Your task to perform on an android device: Open the phone app and click the voicemail tab. Image 0: 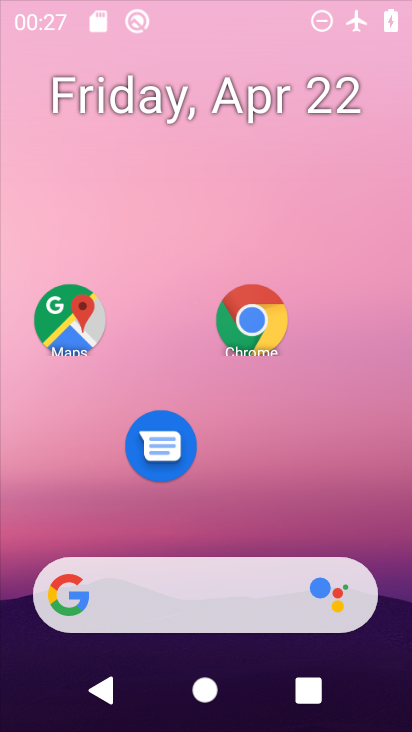
Step 0: click (197, 190)
Your task to perform on an android device: Open the phone app and click the voicemail tab. Image 1: 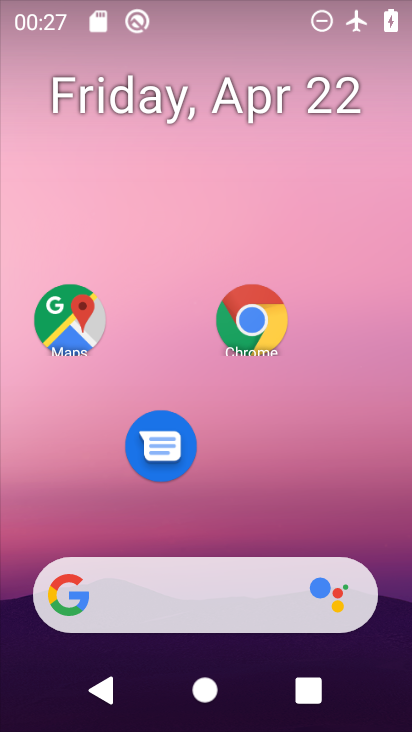
Step 1: drag from (241, 496) to (214, 138)
Your task to perform on an android device: Open the phone app and click the voicemail tab. Image 2: 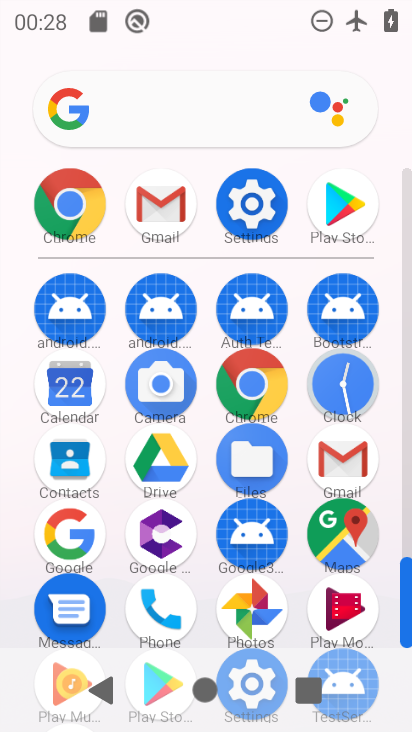
Step 2: drag from (197, 607) to (207, 292)
Your task to perform on an android device: Open the phone app and click the voicemail tab. Image 3: 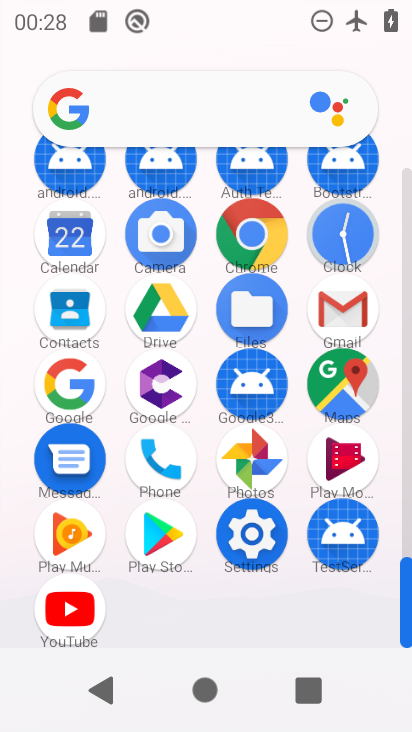
Step 3: click (152, 436)
Your task to perform on an android device: Open the phone app and click the voicemail tab. Image 4: 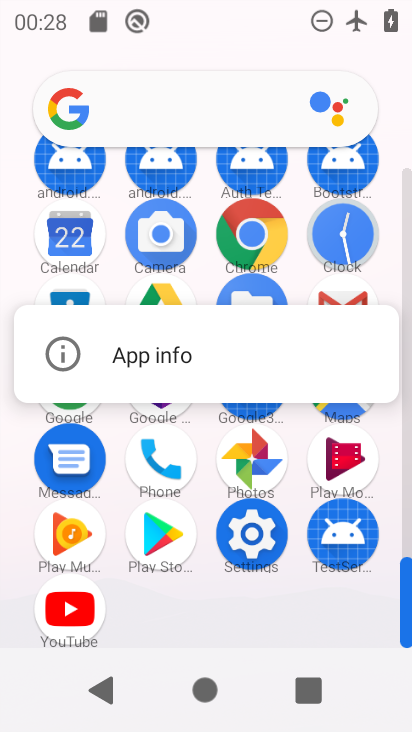
Step 4: click (132, 347)
Your task to perform on an android device: Open the phone app and click the voicemail tab. Image 5: 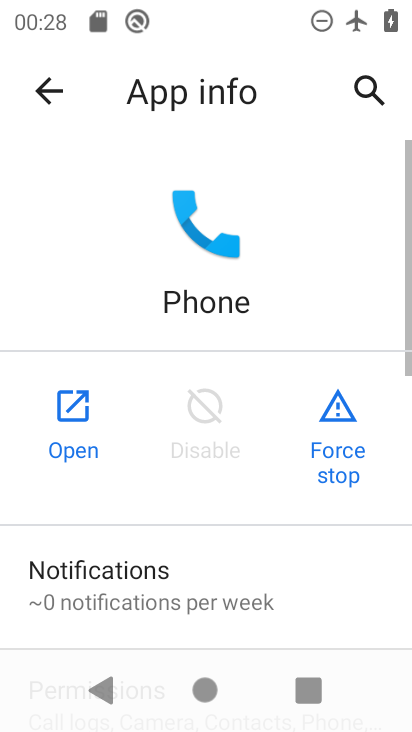
Step 5: click (76, 418)
Your task to perform on an android device: Open the phone app and click the voicemail tab. Image 6: 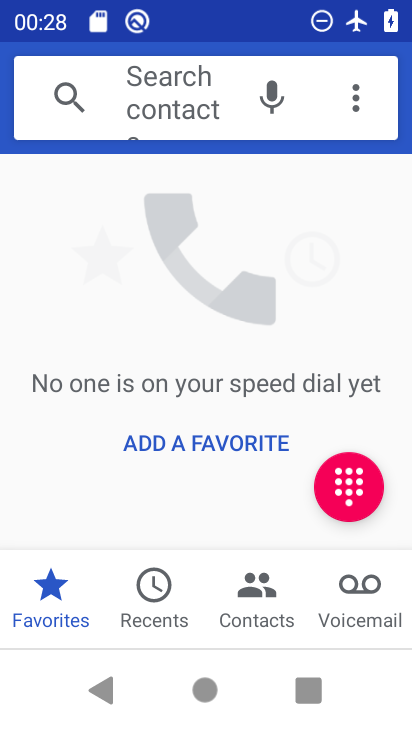
Step 6: click (358, 568)
Your task to perform on an android device: Open the phone app and click the voicemail tab. Image 7: 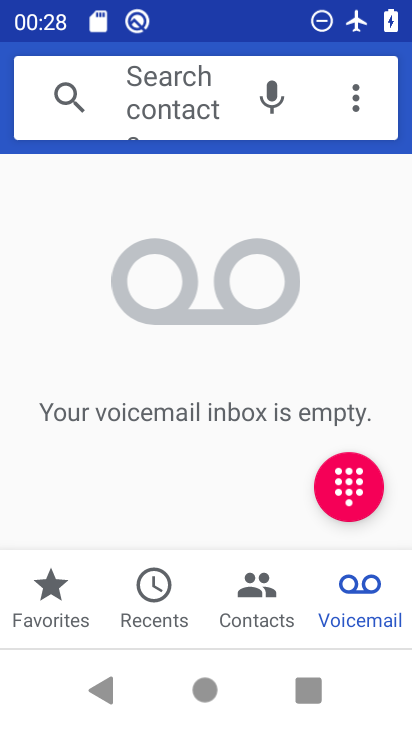
Step 7: drag from (175, 507) to (205, 246)
Your task to perform on an android device: Open the phone app and click the voicemail tab. Image 8: 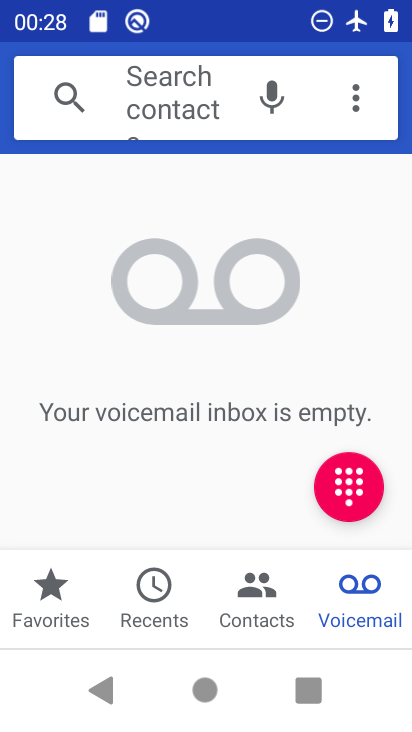
Step 8: drag from (183, 439) to (321, 200)
Your task to perform on an android device: Open the phone app and click the voicemail tab. Image 9: 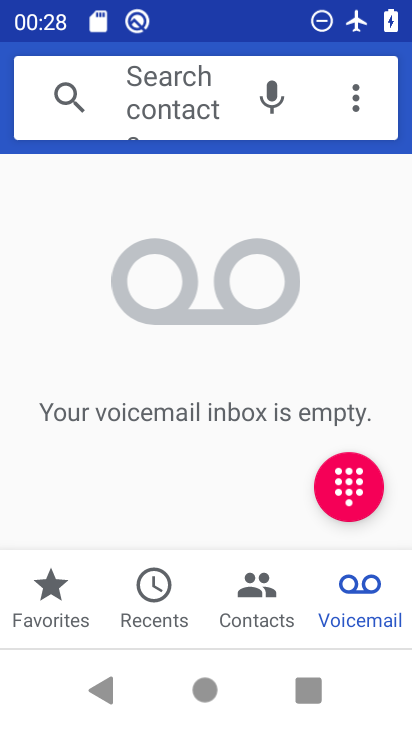
Step 9: drag from (264, 447) to (290, 141)
Your task to perform on an android device: Open the phone app and click the voicemail tab. Image 10: 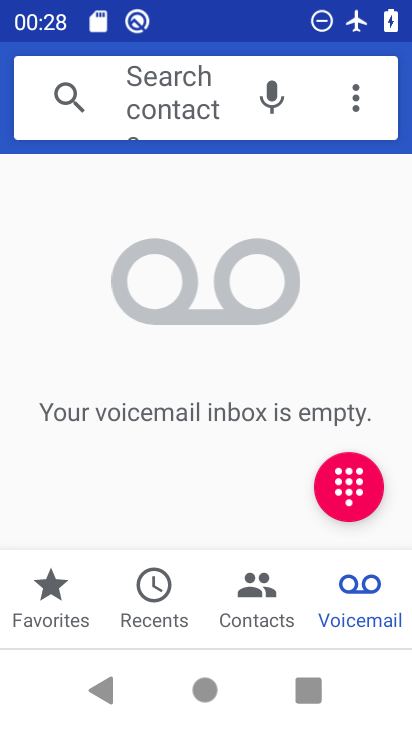
Step 10: click (350, 569)
Your task to perform on an android device: Open the phone app and click the voicemail tab. Image 11: 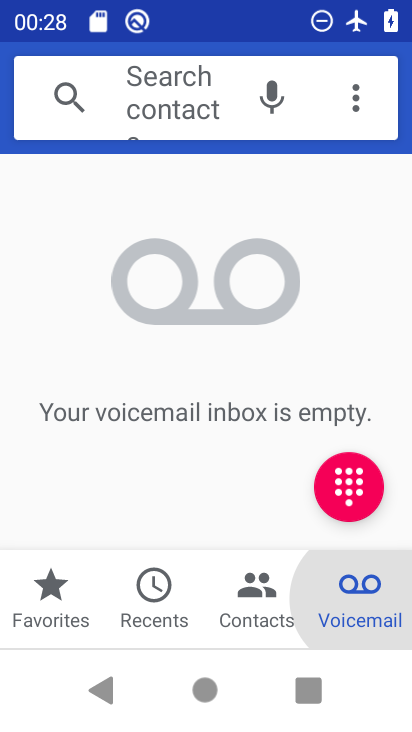
Step 11: task complete